Your task to perform on an android device: turn off data saver in the chrome app Image 0: 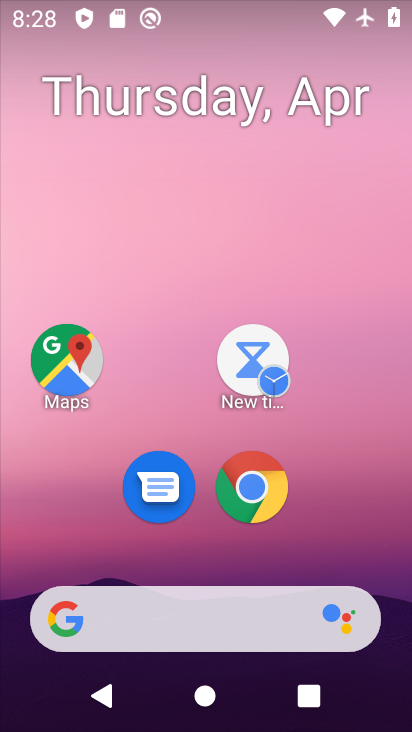
Step 0: click (260, 500)
Your task to perform on an android device: turn off data saver in the chrome app Image 1: 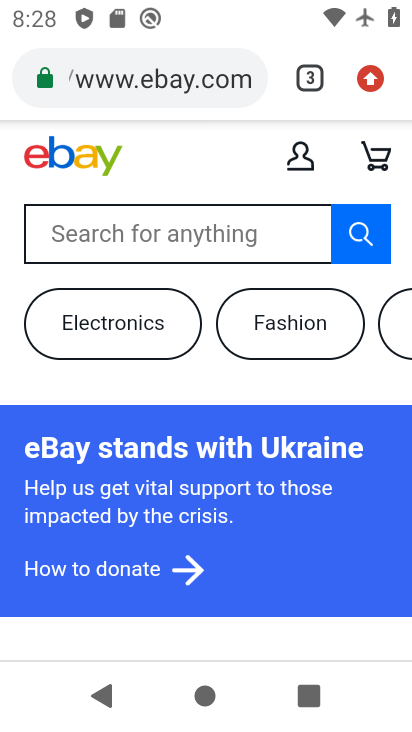
Step 1: drag from (370, 81) to (282, 555)
Your task to perform on an android device: turn off data saver in the chrome app Image 2: 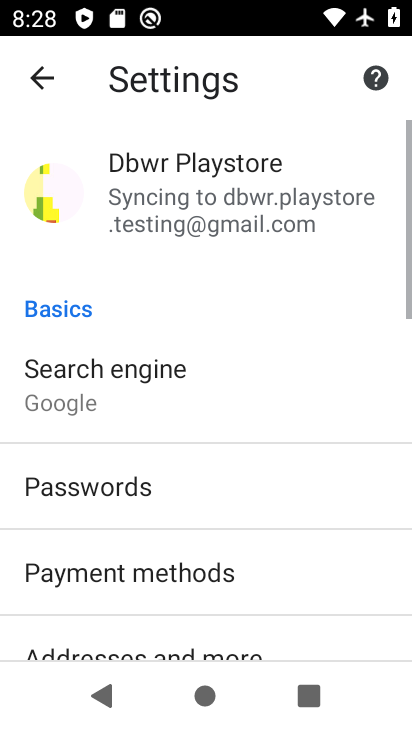
Step 2: drag from (294, 634) to (303, 217)
Your task to perform on an android device: turn off data saver in the chrome app Image 3: 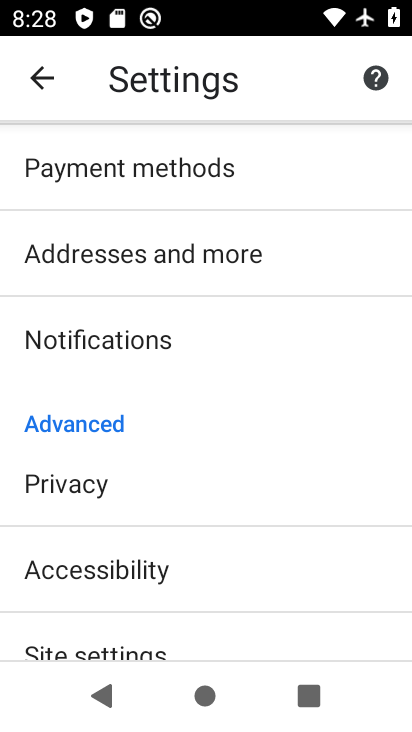
Step 3: drag from (270, 593) to (280, 248)
Your task to perform on an android device: turn off data saver in the chrome app Image 4: 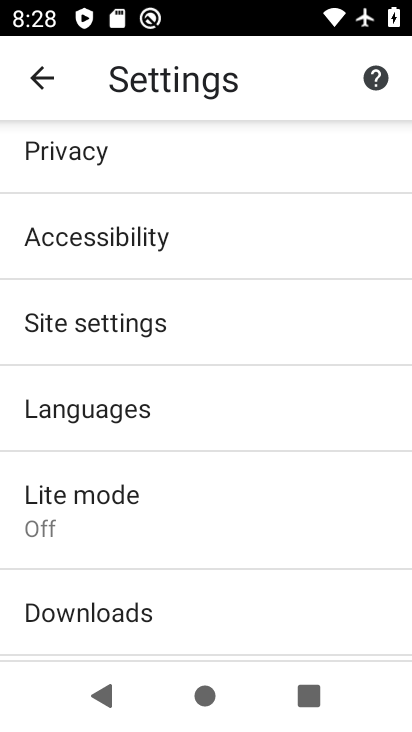
Step 4: click (59, 511)
Your task to perform on an android device: turn off data saver in the chrome app Image 5: 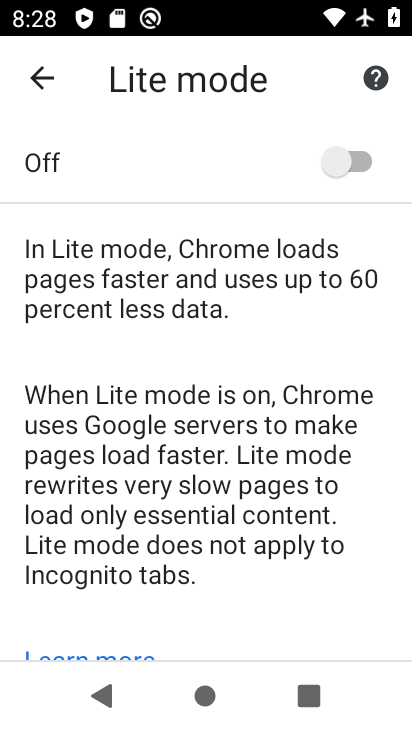
Step 5: task complete